Your task to perform on an android device: empty trash in the gmail app Image 0: 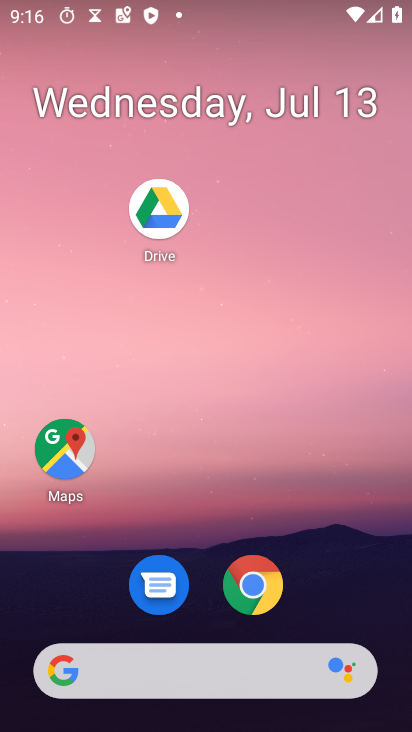
Step 0: drag from (247, 646) to (280, 192)
Your task to perform on an android device: empty trash in the gmail app Image 1: 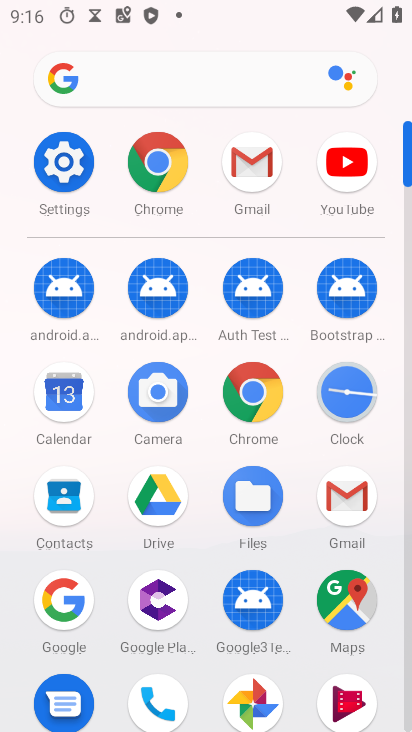
Step 1: click (260, 164)
Your task to perform on an android device: empty trash in the gmail app Image 2: 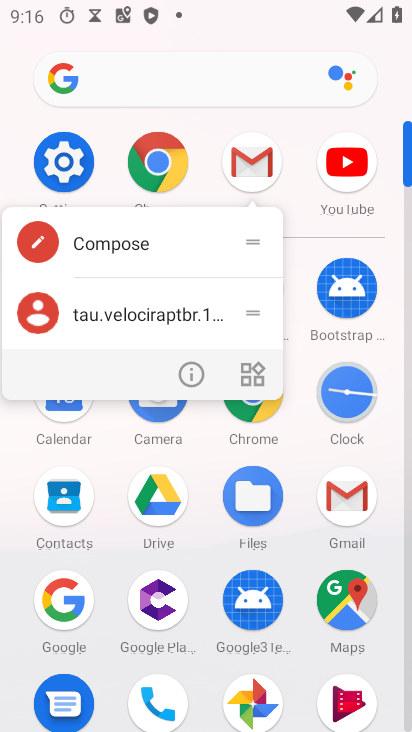
Step 2: click (260, 164)
Your task to perform on an android device: empty trash in the gmail app Image 3: 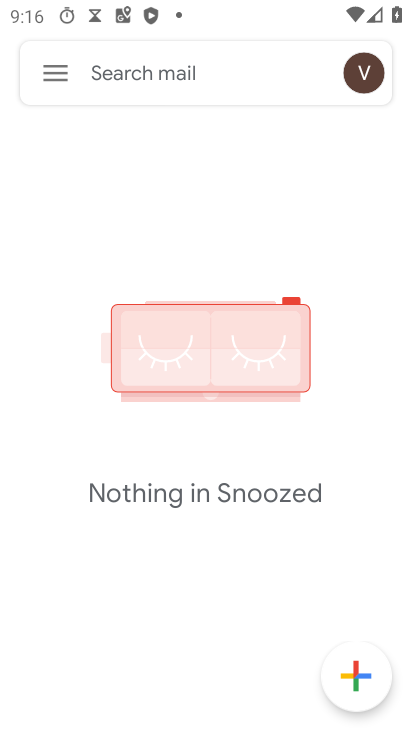
Step 3: click (62, 76)
Your task to perform on an android device: empty trash in the gmail app Image 4: 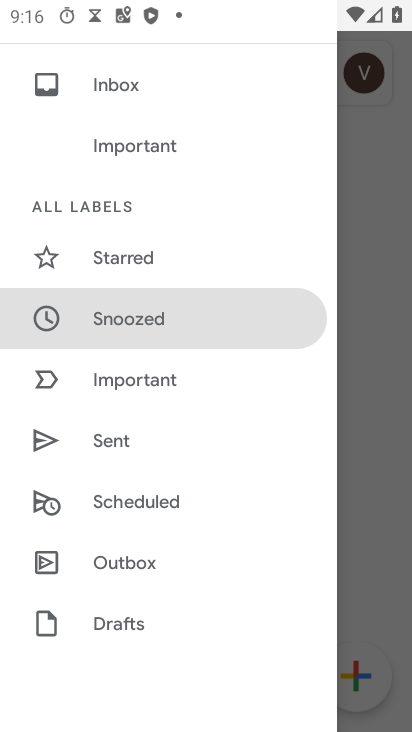
Step 4: drag from (171, 595) to (279, 49)
Your task to perform on an android device: empty trash in the gmail app Image 5: 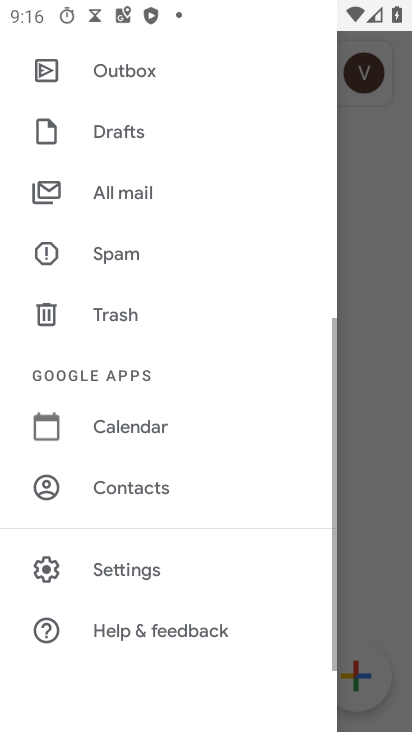
Step 5: click (122, 314)
Your task to perform on an android device: empty trash in the gmail app Image 6: 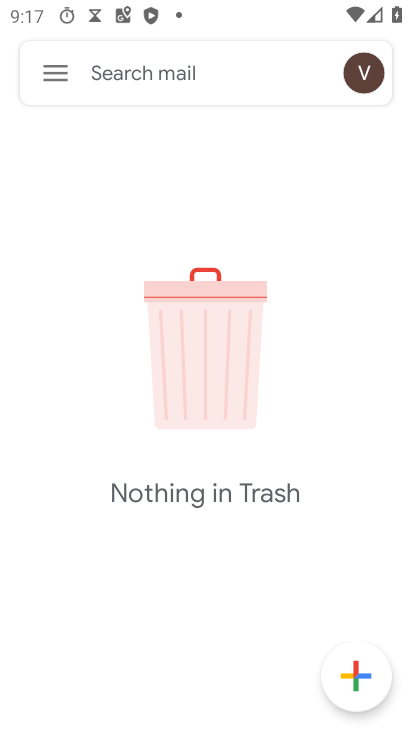
Step 6: task complete